Your task to perform on an android device: add a contact Image 0: 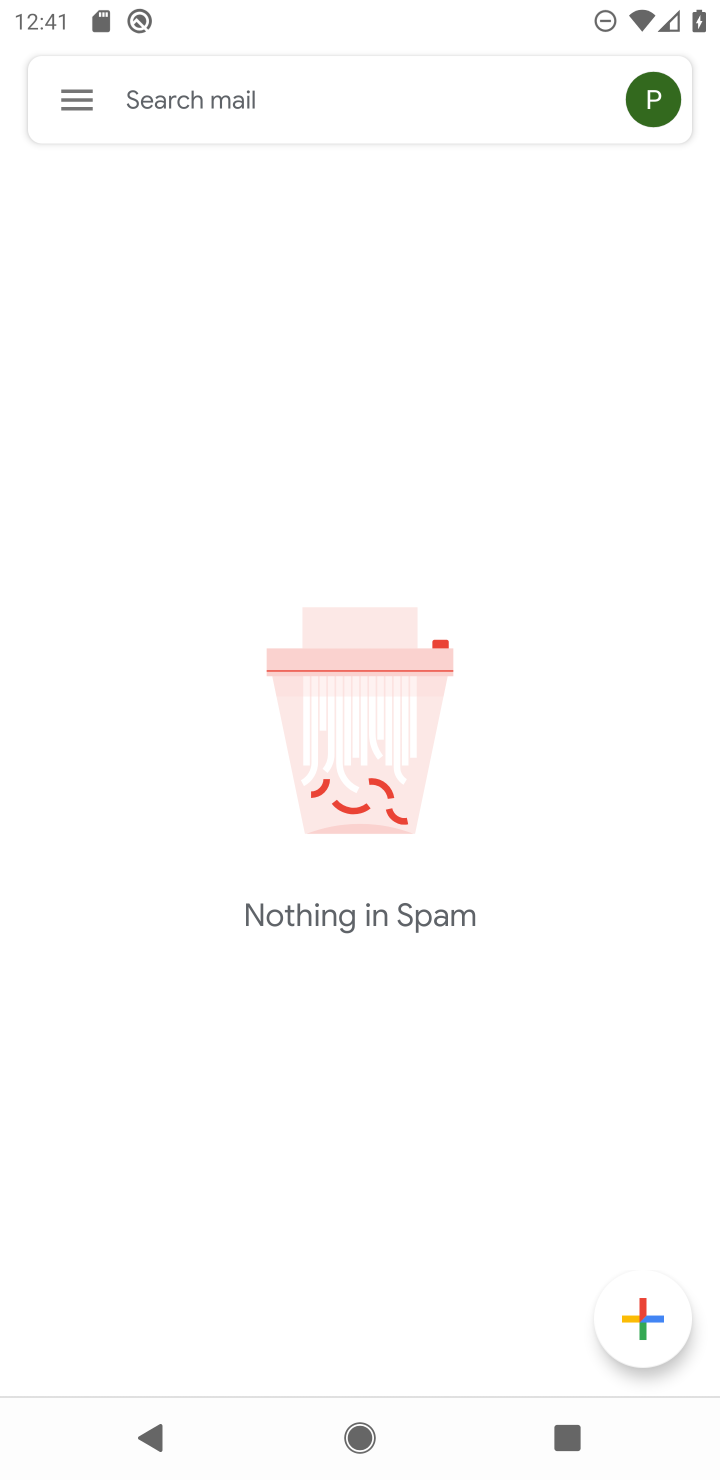
Step 0: press home button
Your task to perform on an android device: add a contact Image 1: 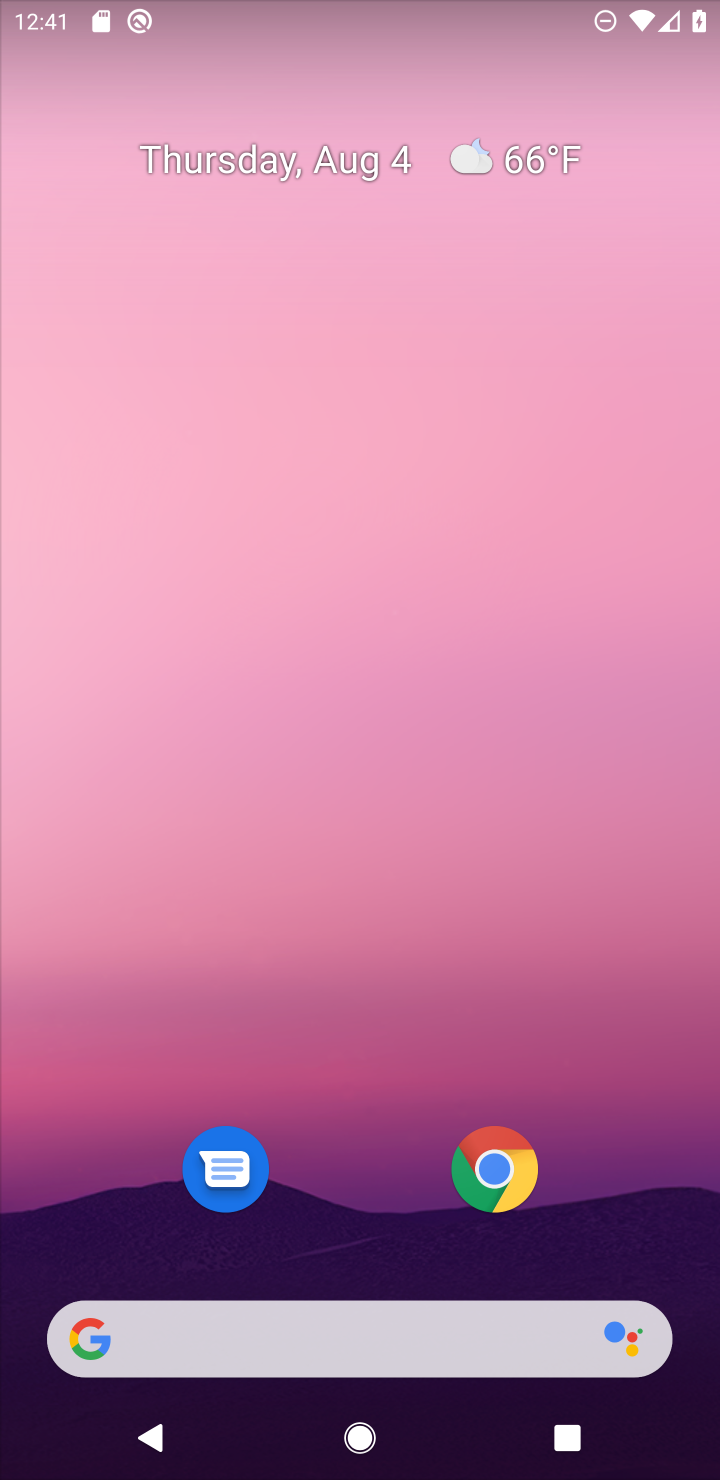
Step 1: drag from (410, 1200) to (359, 0)
Your task to perform on an android device: add a contact Image 2: 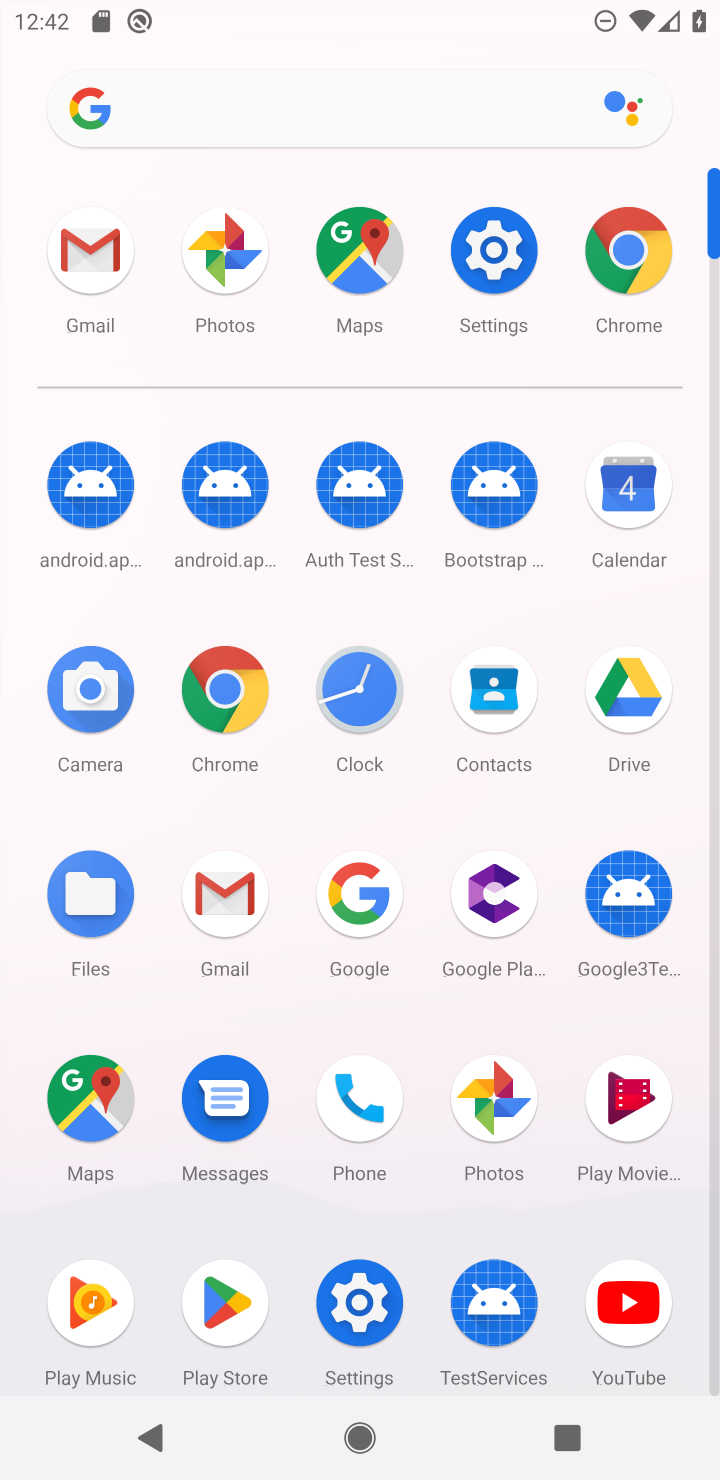
Step 2: click (497, 695)
Your task to perform on an android device: add a contact Image 3: 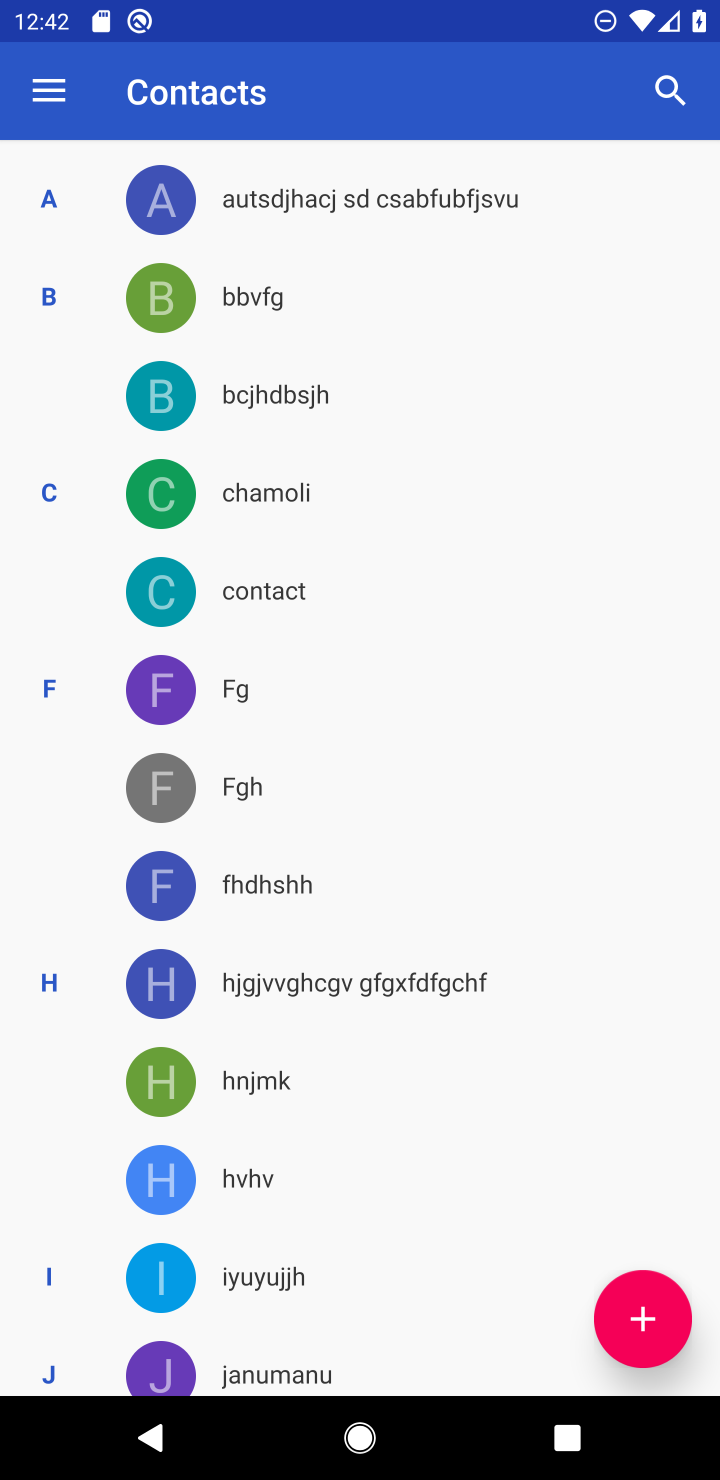
Step 3: click (631, 1314)
Your task to perform on an android device: add a contact Image 4: 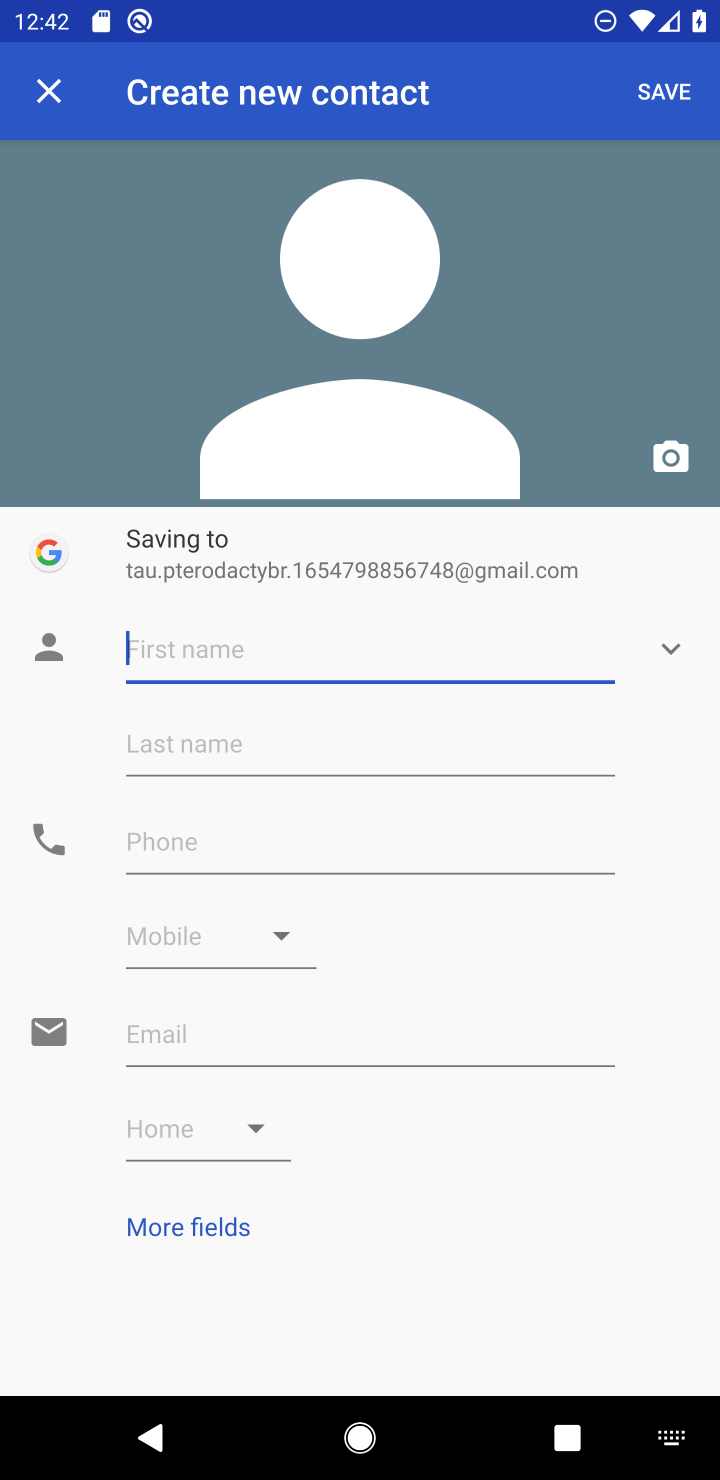
Step 4: click (223, 642)
Your task to perform on an android device: add a contact Image 5: 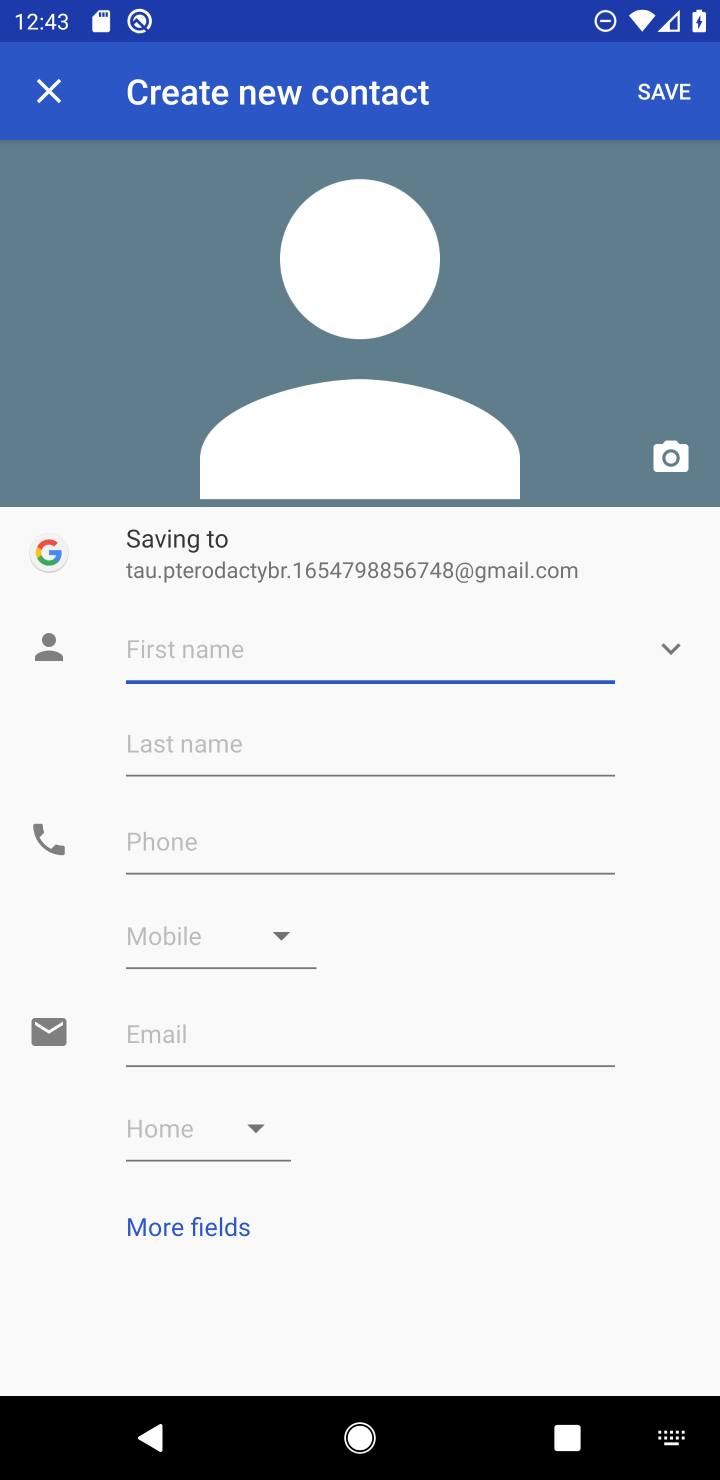
Step 5: type "jhil mil"
Your task to perform on an android device: add a contact Image 6: 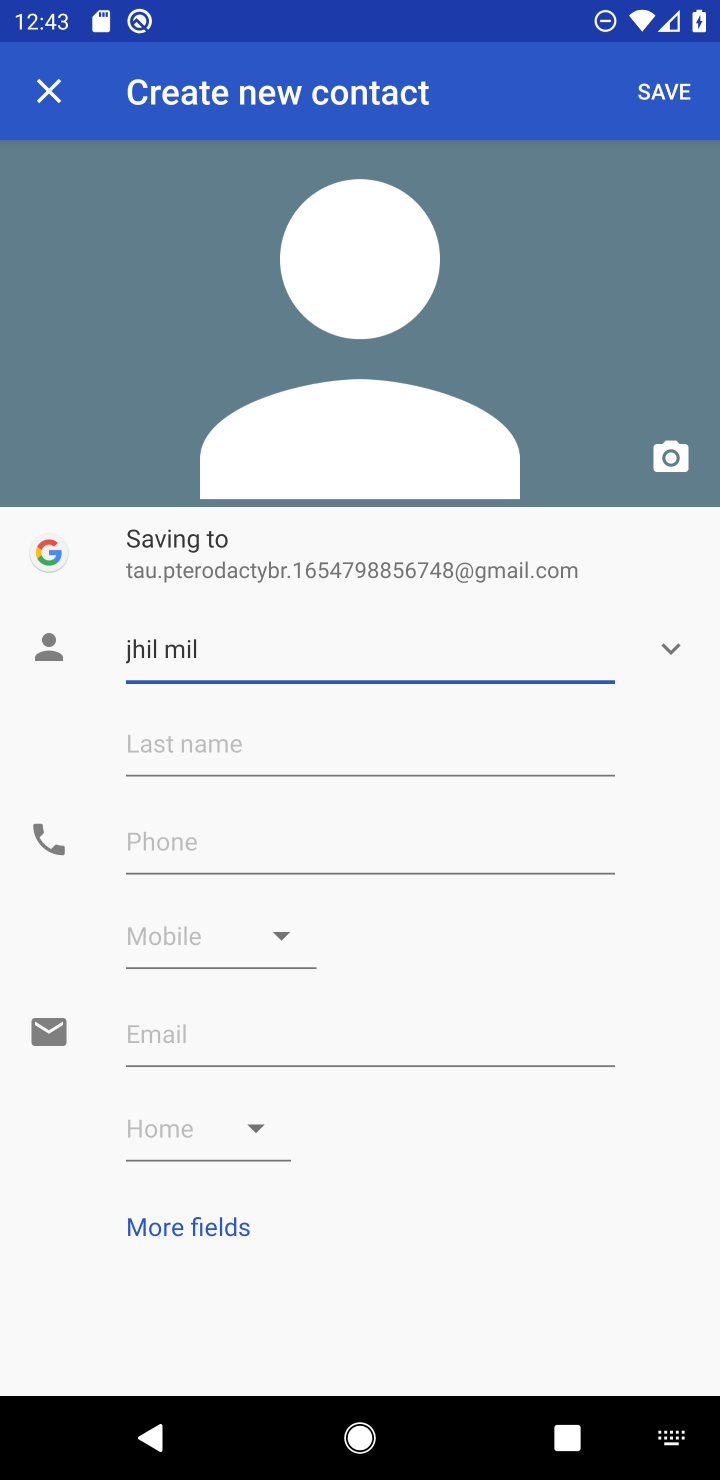
Step 6: click (181, 833)
Your task to perform on an android device: add a contact Image 7: 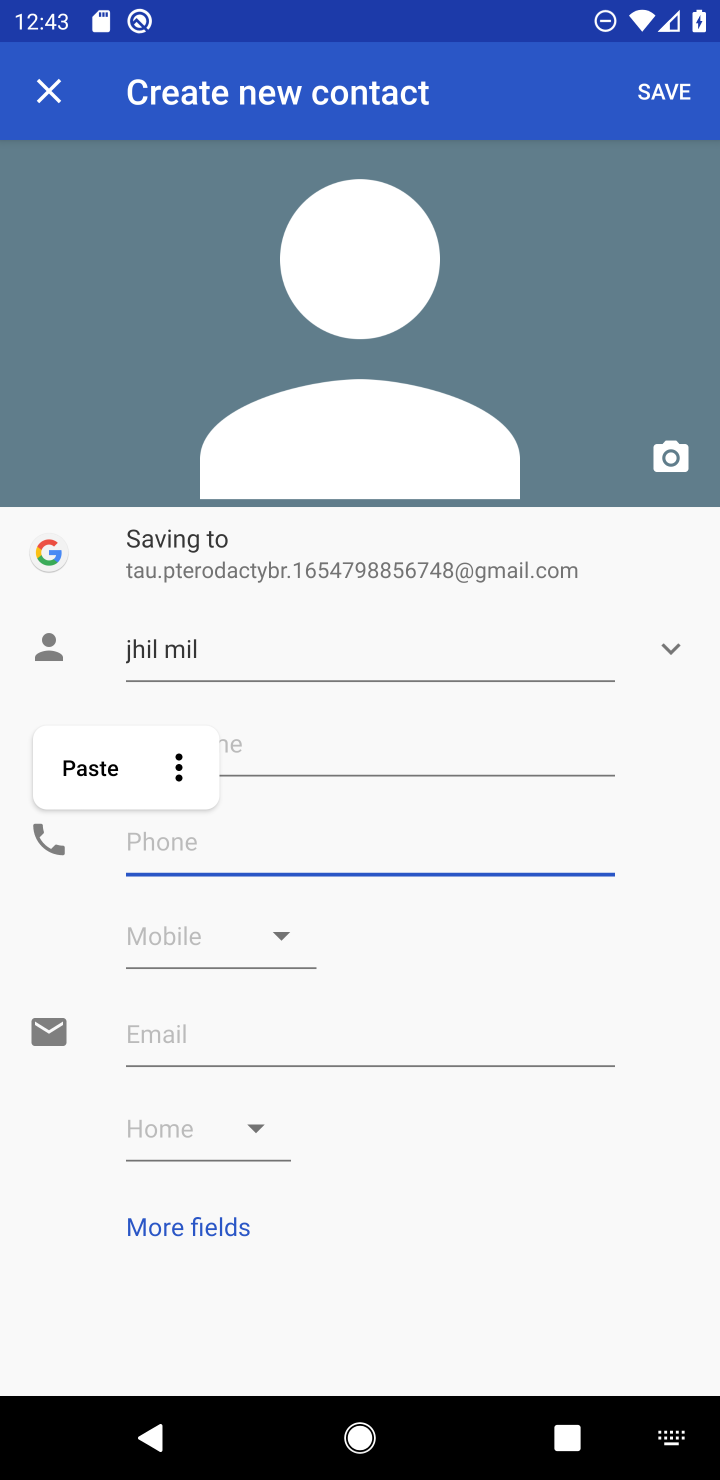
Step 7: type "8766543345"
Your task to perform on an android device: add a contact Image 8: 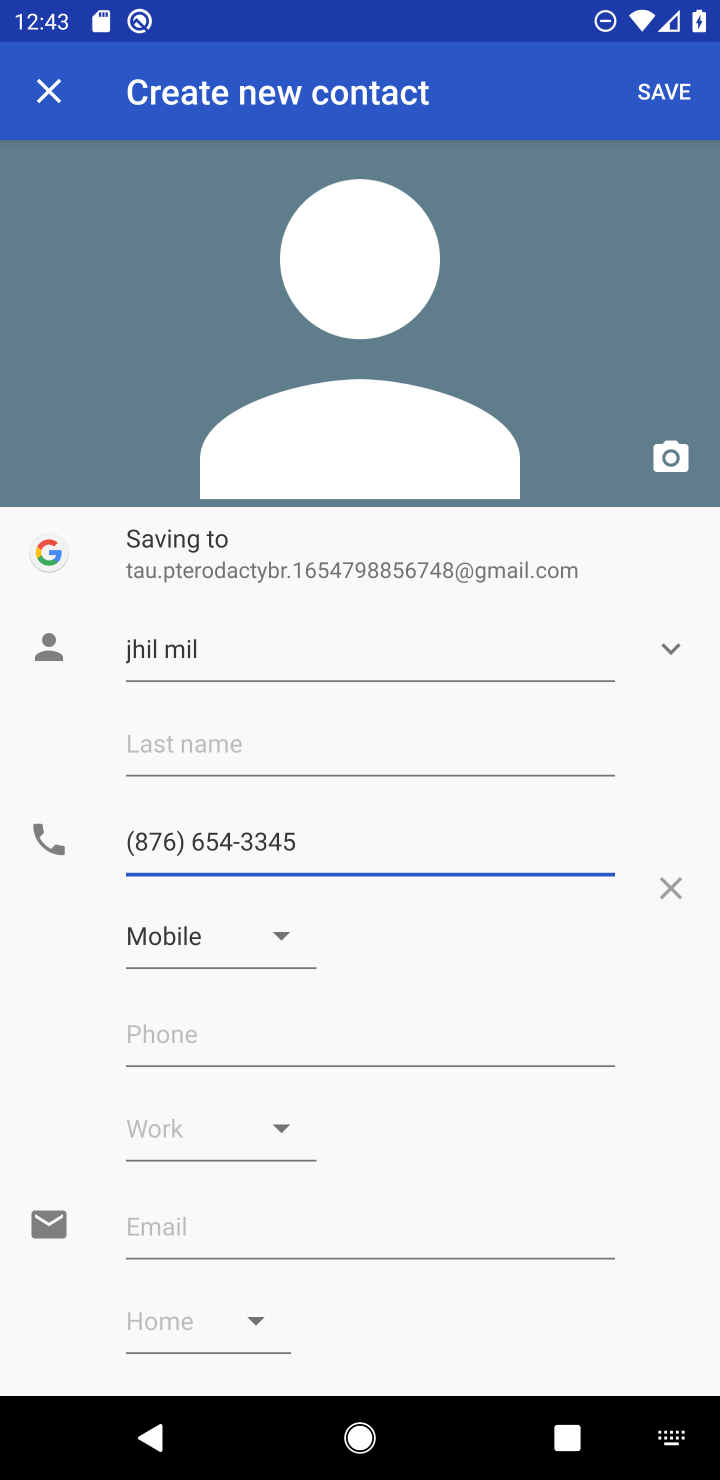
Step 8: click (659, 86)
Your task to perform on an android device: add a contact Image 9: 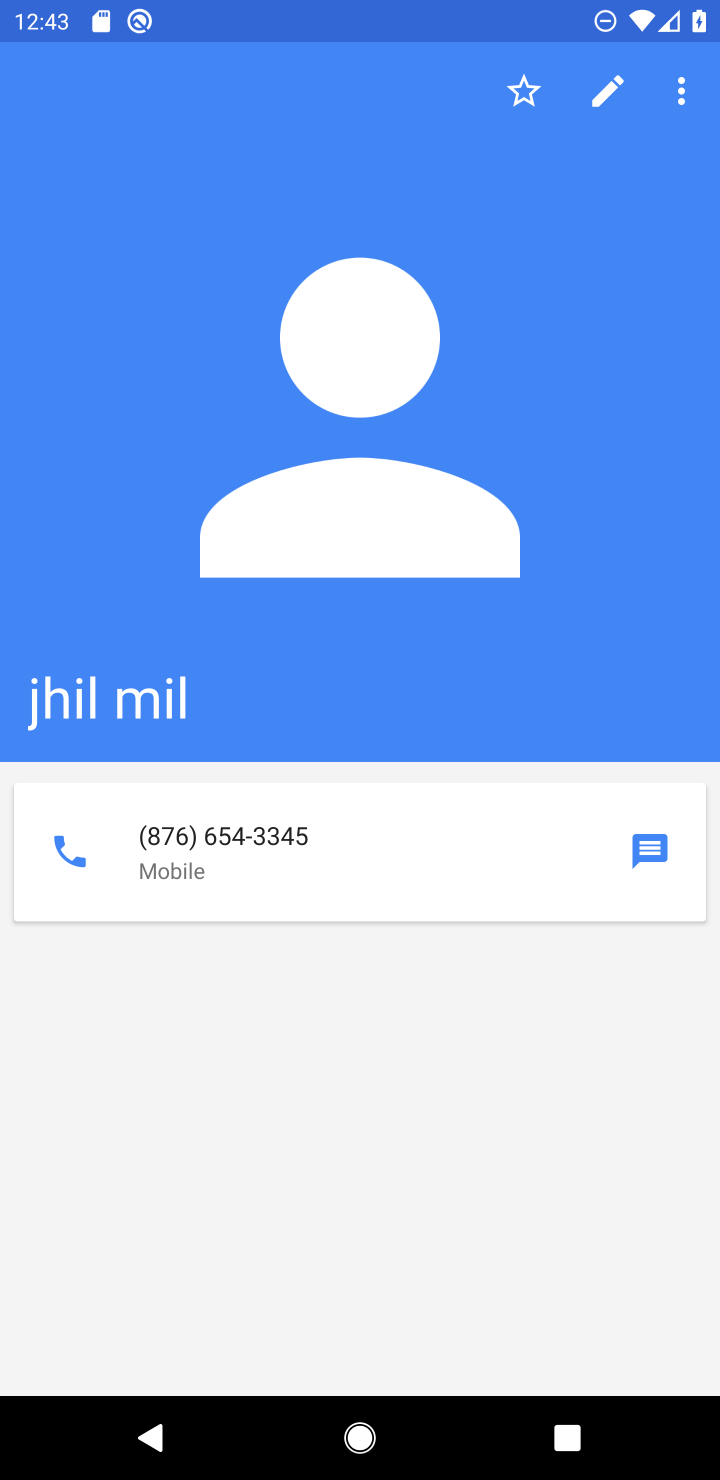
Step 9: task complete